Your task to perform on an android device: toggle notification dots Image 0: 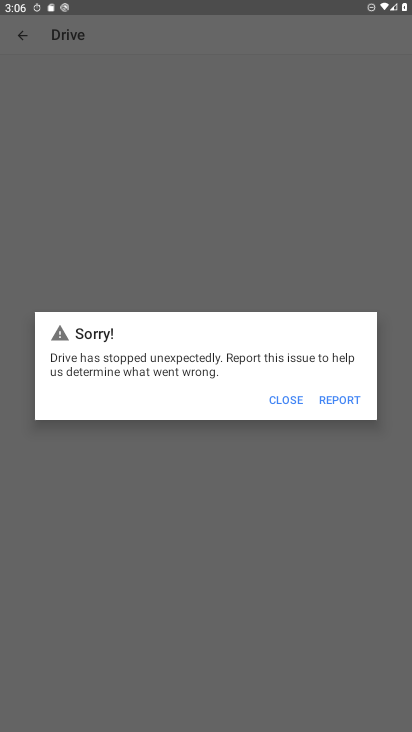
Step 0: press home button
Your task to perform on an android device: toggle notification dots Image 1: 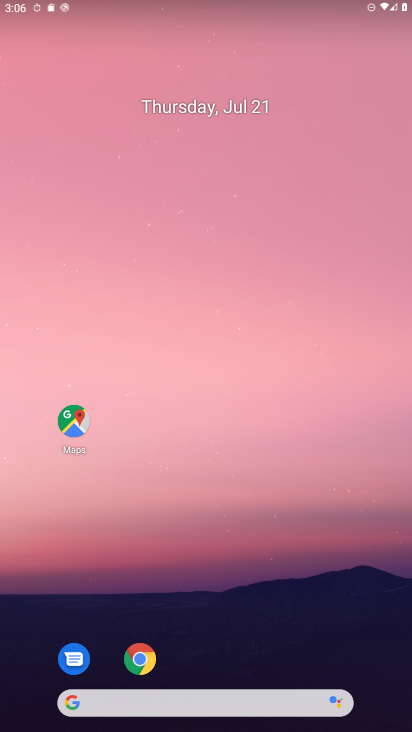
Step 1: drag from (28, 552) to (243, 56)
Your task to perform on an android device: toggle notification dots Image 2: 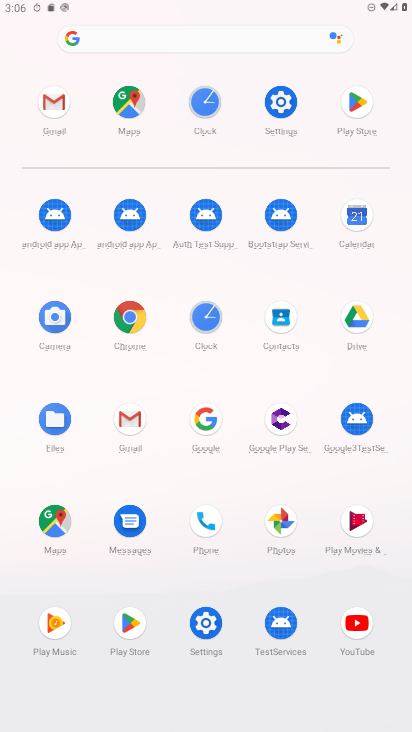
Step 2: click (282, 114)
Your task to perform on an android device: toggle notification dots Image 3: 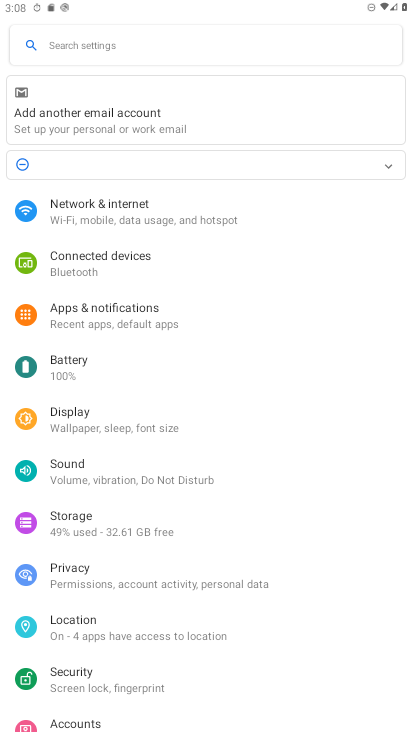
Step 3: click (160, 310)
Your task to perform on an android device: toggle notification dots Image 4: 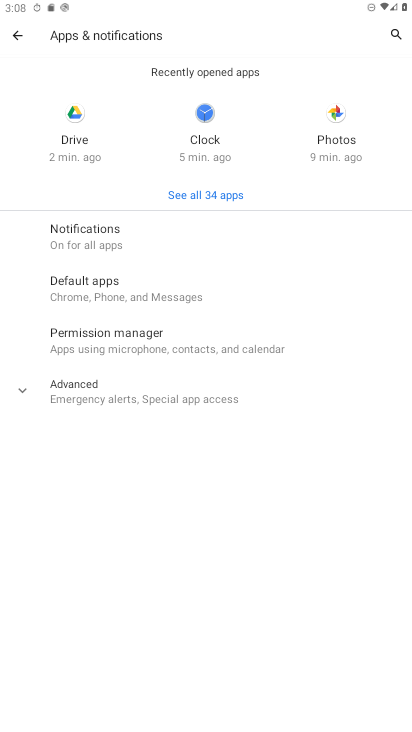
Step 4: click (107, 237)
Your task to perform on an android device: toggle notification dots Image 5: 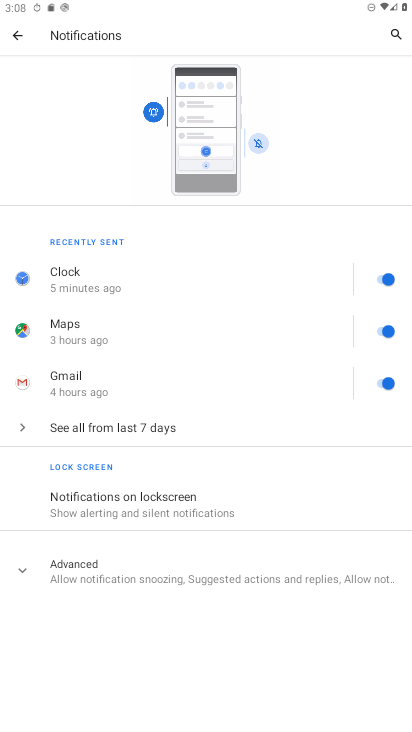
Step 5: click (187, 580)
Your task to perform on an android device: toggle notification dots Image 6: 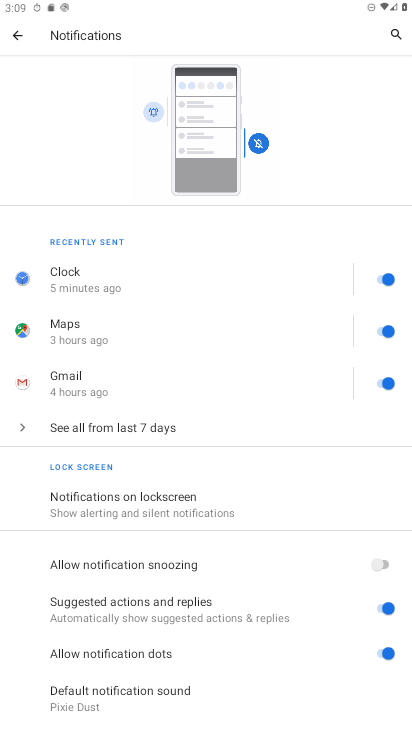
Step 6: click (393, 658)
Your task to perform on an android device: toggle notification dots Image 7: 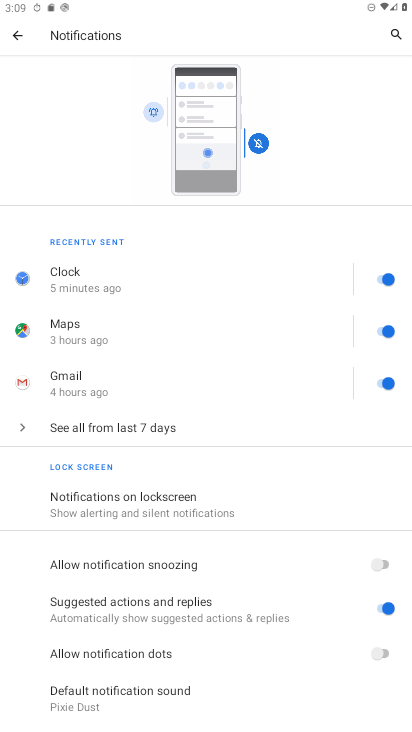
Step 7: task complete